Your task to perform on an android device: remove spam from my inbox in the gmail app Image 0: 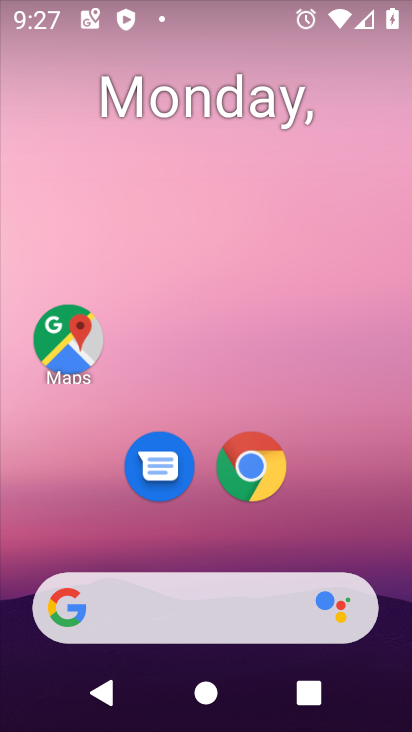
Step 0: drag from (373, 552) to (137, 3)
Your task to perform on an android device: remove spam from my inbox in the gmail app Image 1: 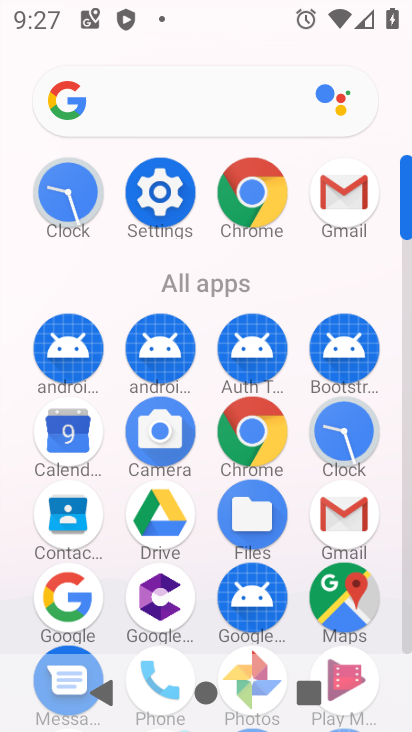
Step 1: drag from (340, 492) to (353, 534)
Your task to perform on an android device: remove spam from my inbox in the gmail app Image 2: 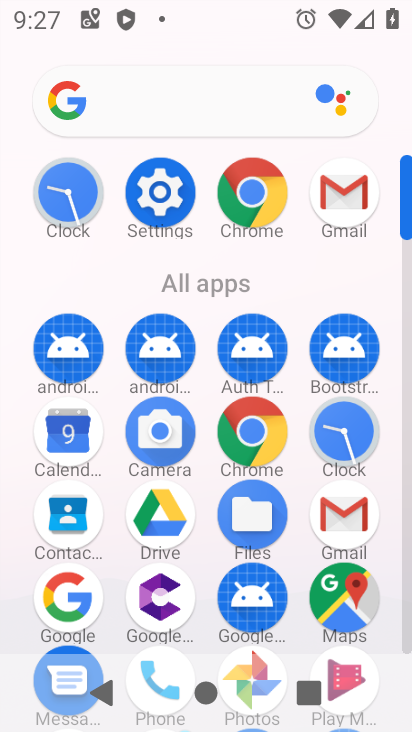
Step 2: click (347, 526)
Your task to perform on an android device: remove spam from my inbox in the gmail app Image 3: 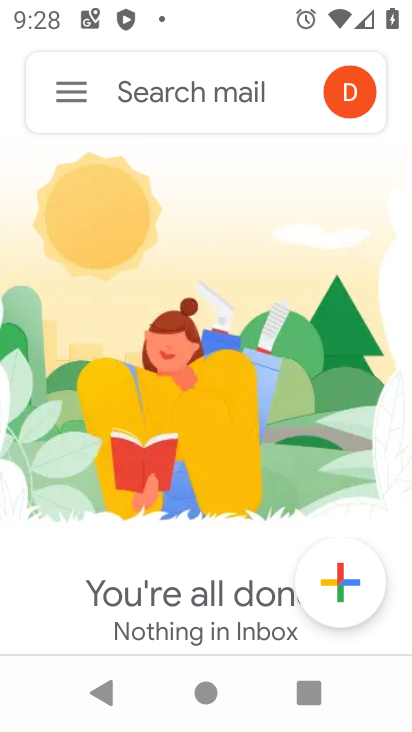
Step 3: drag from (71, 80) to (53, 250)
Your task to perform on an android device: remove spam from my inbox in the gmail app Image 4: 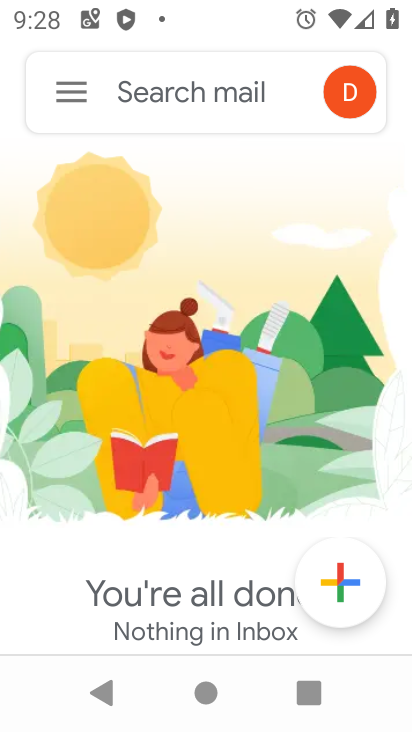
Step 4: click (66, 97)
Your task to perform on an android device: remove spam from my inbox in the gmail app Image 5: 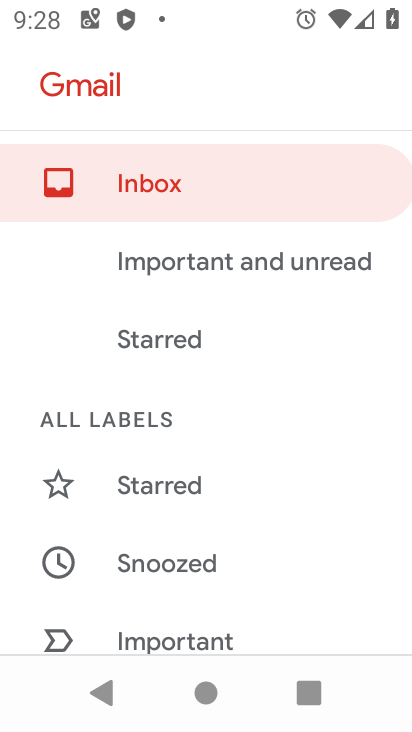
Step 5: click (67, 95)
Your task to perform on an android device: remove spam from my inbox in the gmail app Image 6: 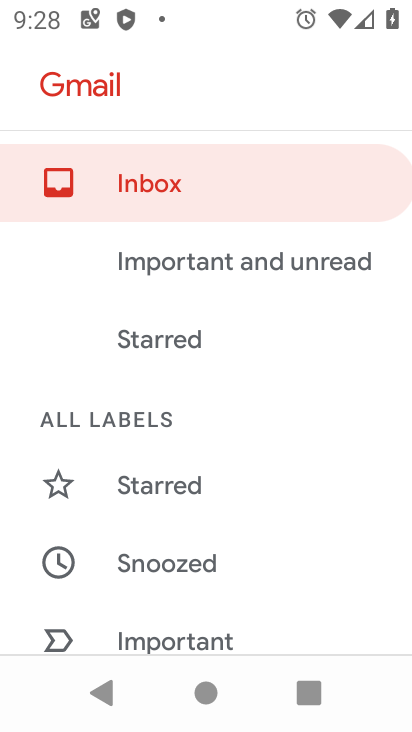
Step 6: drag from (212, 510) to (128, 173)
Your task to perform on an android device: remove spam from my inbox in the gmail app Image 7: 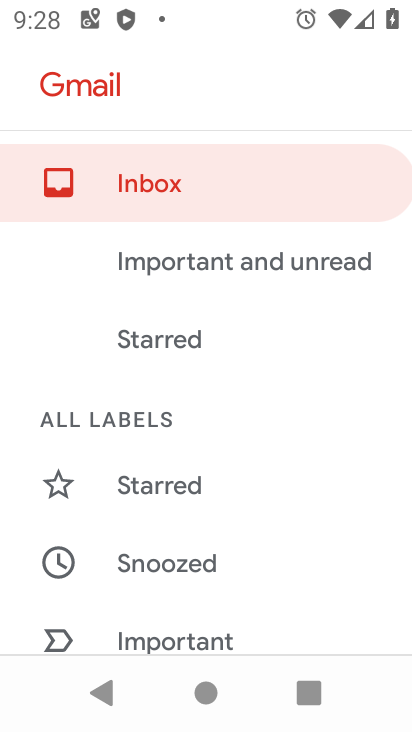
Step 7: drag from (234, 484) to (200, 209)
Your task to perform on an android device: remove spam from my inbox in the gmail app Image 8: 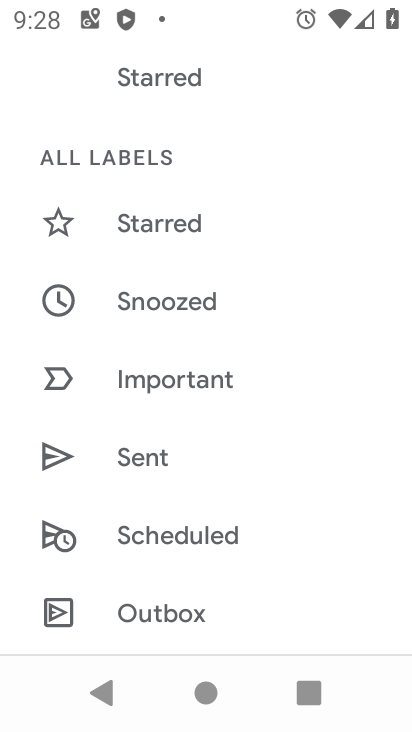
Step 8: drag from (236, 505) to (157, 141)
Your task to perform on an android device: remove spam from my inbox in the gmail app Image 9: 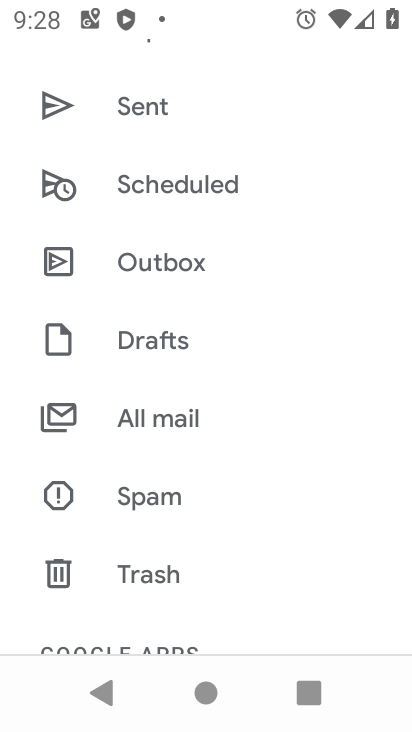
Step 9: drag from (268, 489) to (187, 113)
Your task to perform on an android device: remove spam from my inbox in the gmail app Image 10: 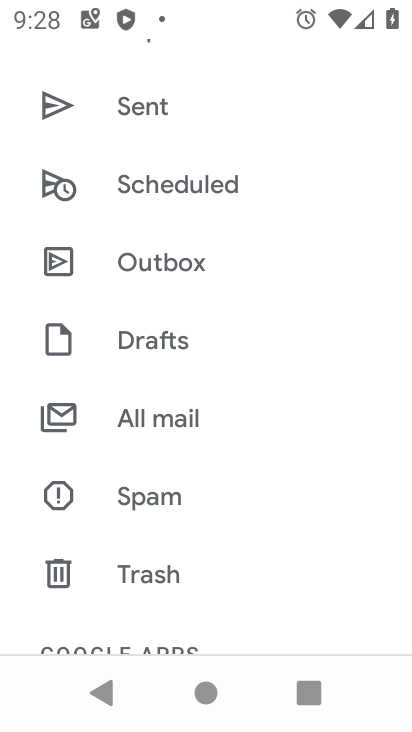
Step 10: click (154, 410)
Your task to perform on an android device: remove spam from my inbox in the gmail app Image 11: 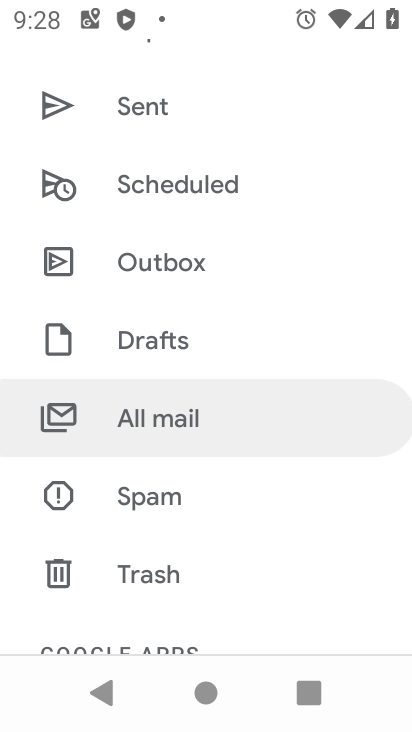
Step 11: click (154, 410)
Your task to perform on an android device: remove spam from my inbox in the gmail app Image 12: 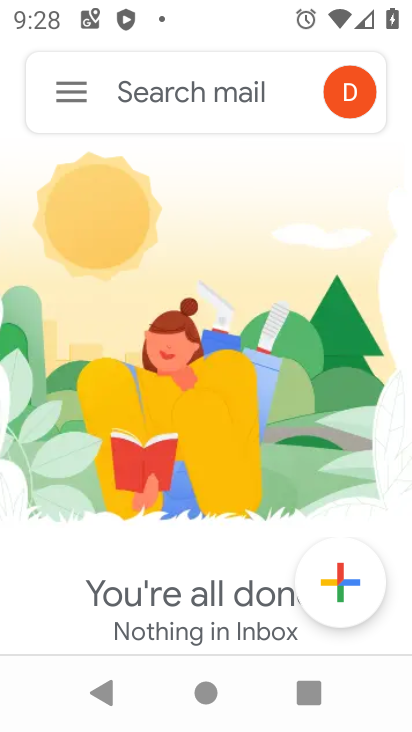
Step 12: click (154, 410)
Your task to perform on an android device: remove spam from my inbox in the gmail app Image 13: 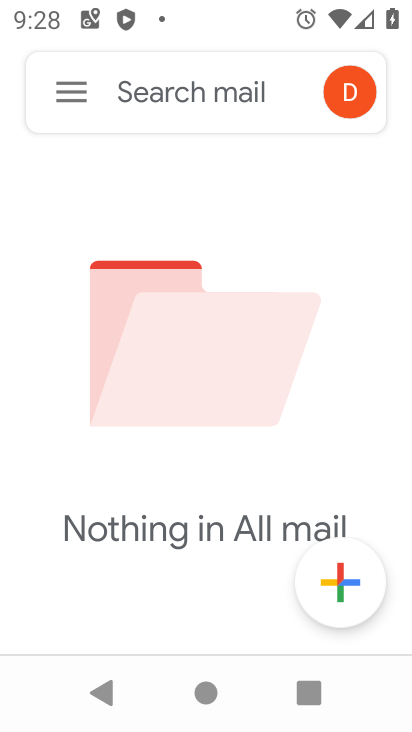
Step 13: task complete